Your task to perform on an android device: turn off sleep mode Image 0: 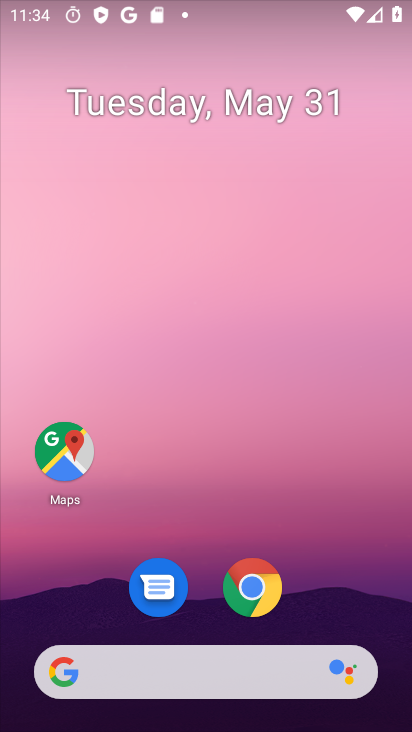
Step 0: drag from (324, 605) to (221, 161)
Your task to perform on an android device: turn off sleep mode Image 1: 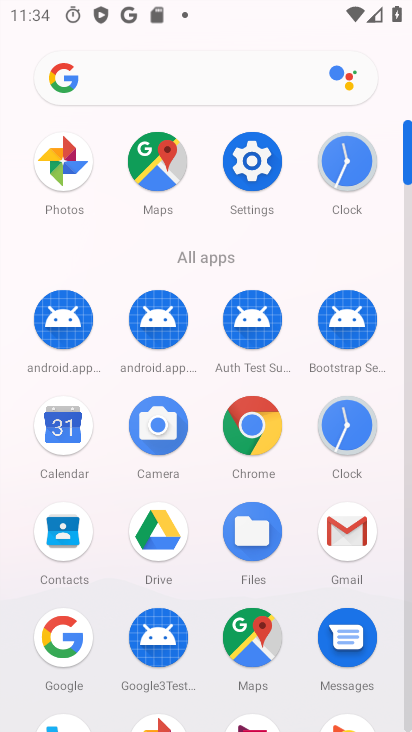
Step 1: click (253, 157)
Your task to perform on an android device: turn off sleep mode Image 2: 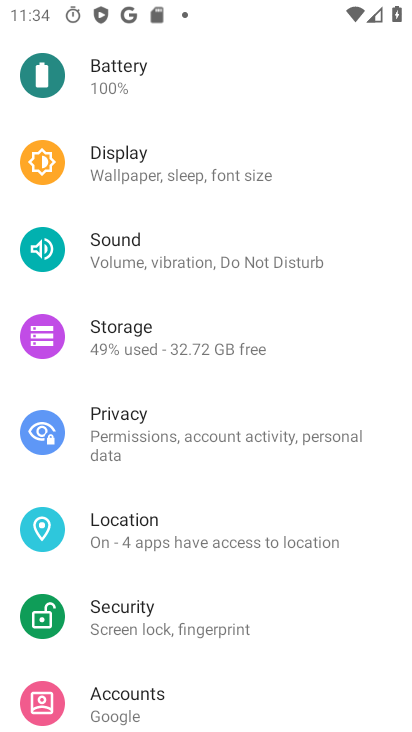
Step 2: click (182, 179)
Your task to perform on an android device: turn off sleep mode Image 3: 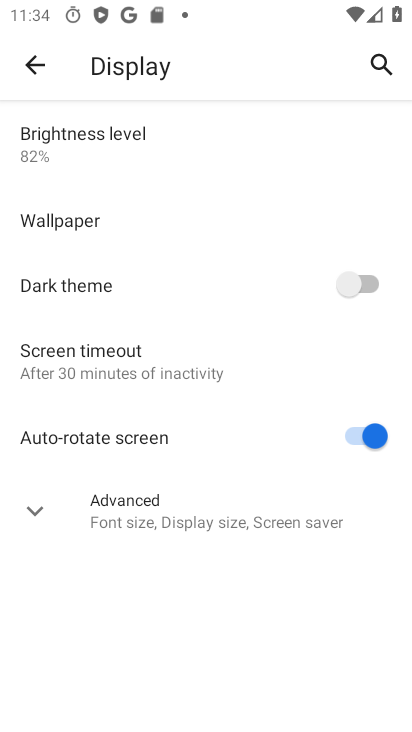
Step 3: click (99, 352)
Your task to perform on an android device: turn off sleep mode Image 4: 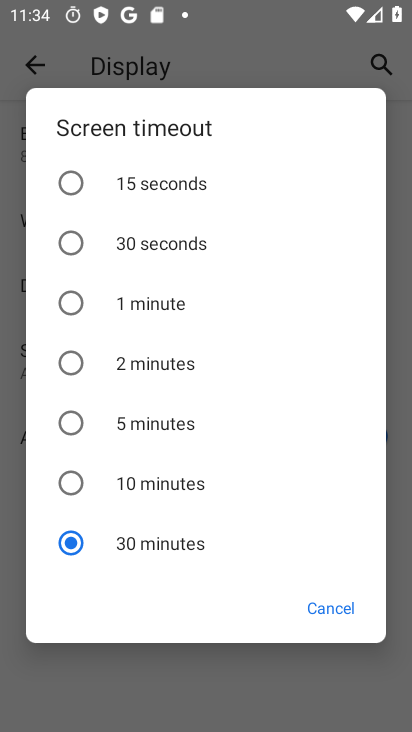
Step 4: click (351, 609)
Your task to perform on an android device: turn off sleep mode Image 5: 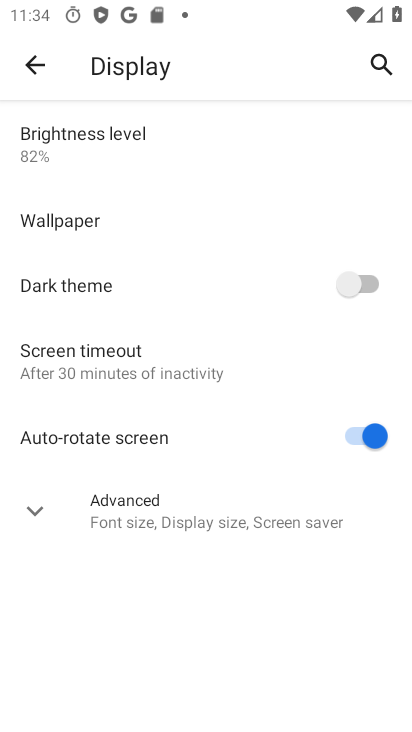
Step 5: click (172, 511)
Your task to perform on an android device: turn off sleep mode Image 6: 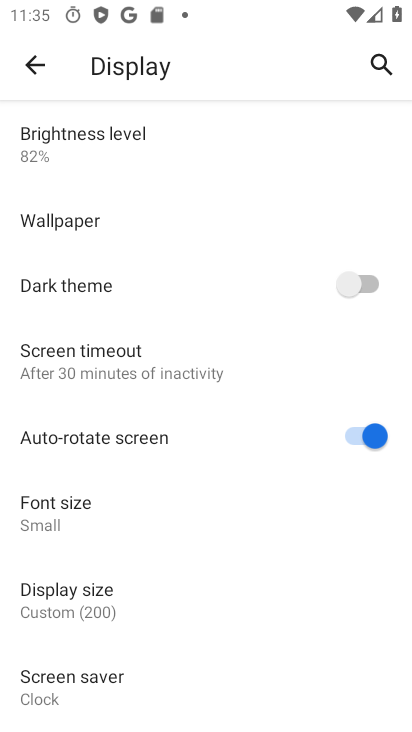
Step 6: drag from (148, 575) to (104, 407)
Your task to perform on an android device: turn off sleep mode Image 7: 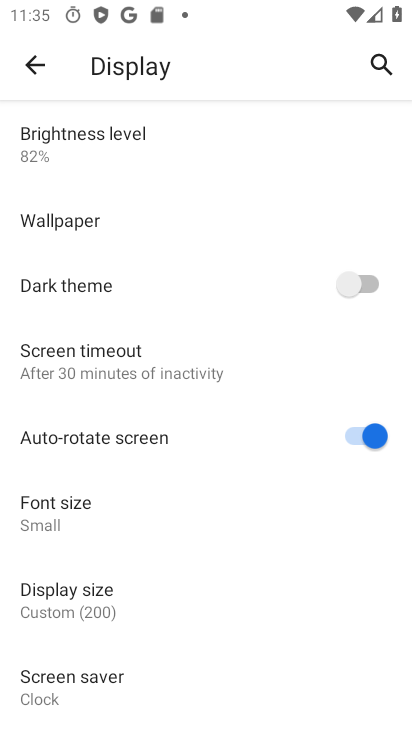
Step 7: click (87, 669)
Your task to perform on an android device: turn off sleep mode Image 8: 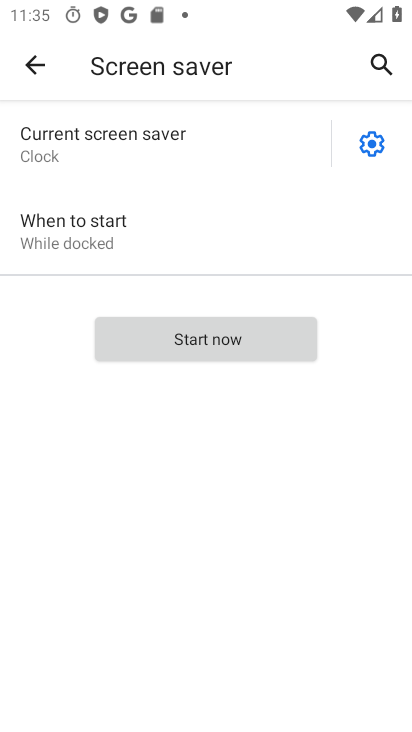
Step 8: click (370, 146)
Your task to perform on an android device: turn off sleep mode Image 9: 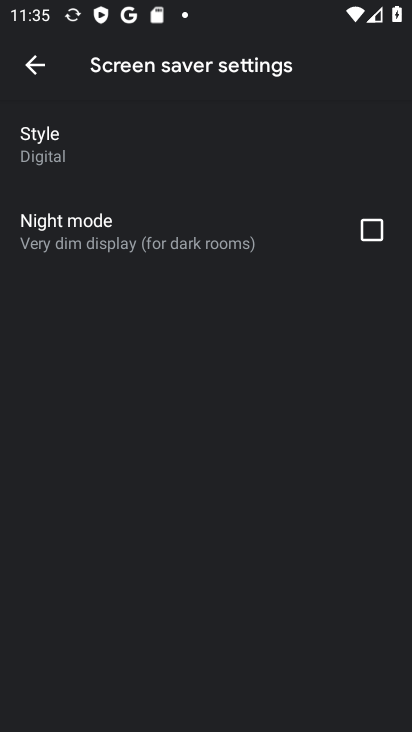
Step 9: task complete